Your task to perform on an android device: Go to Reddit.com Image 0: 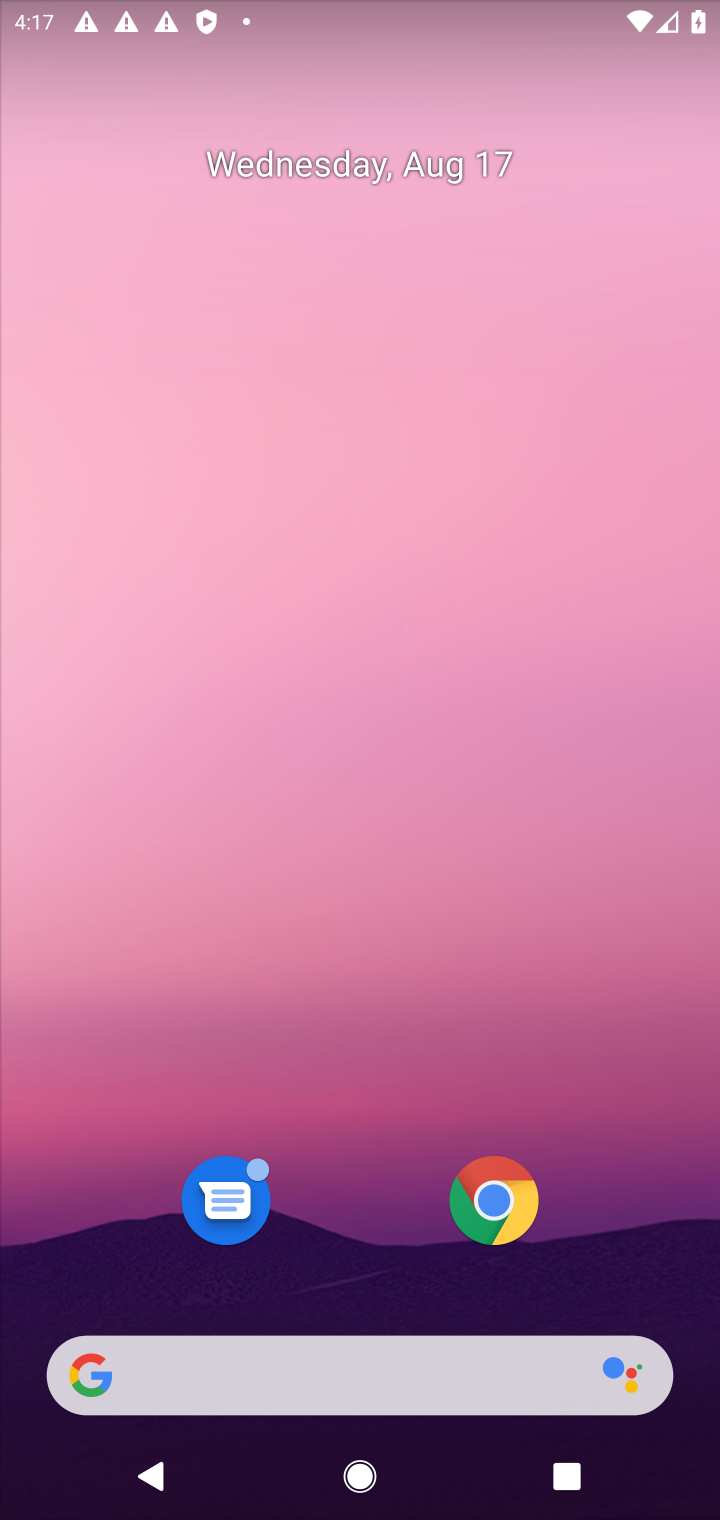
Step 0: drag from (315, 369) to (311, 200)
Your task to perform on an android device: Go to Reddit.com Image 1: 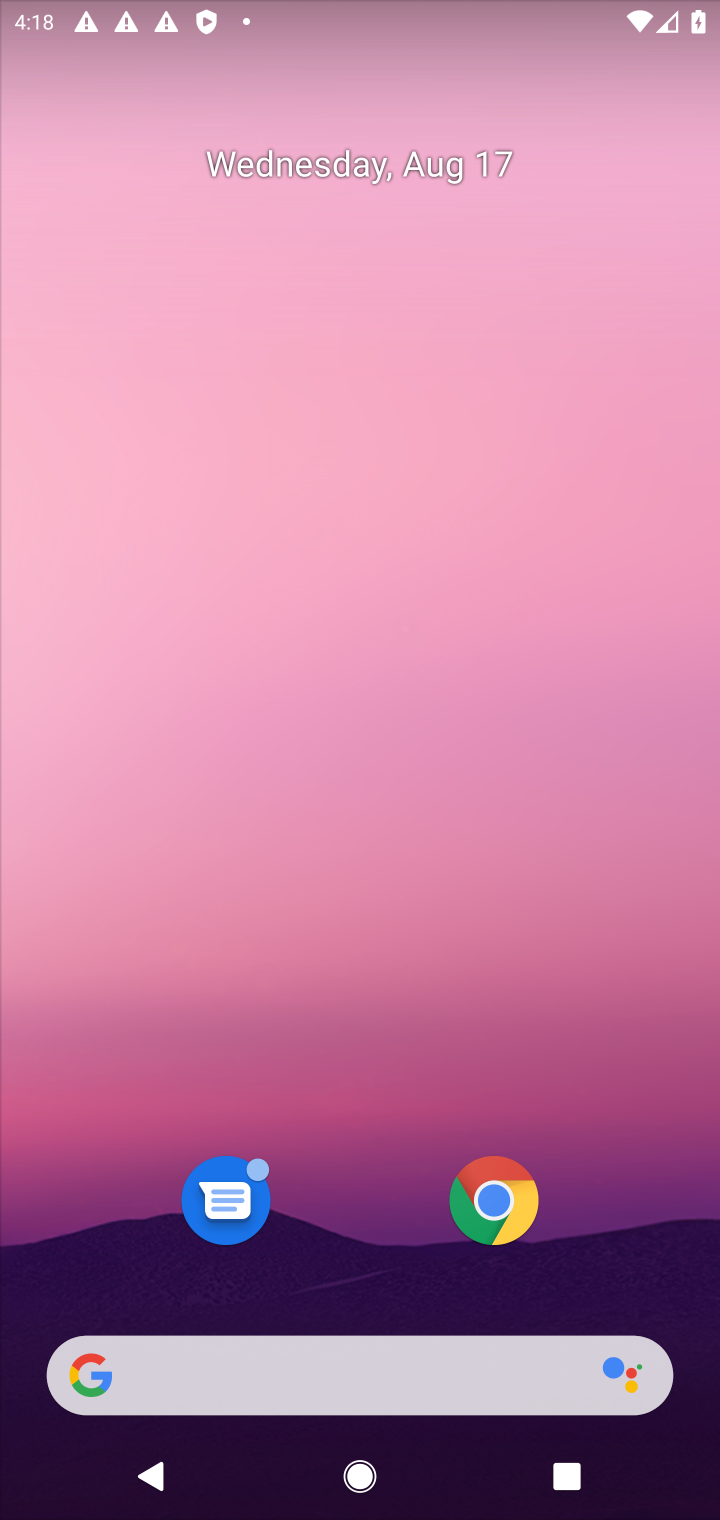
Step 1: click (503, 1204)
Your task to perform on an android device: Go to Reddit.com Image 2: 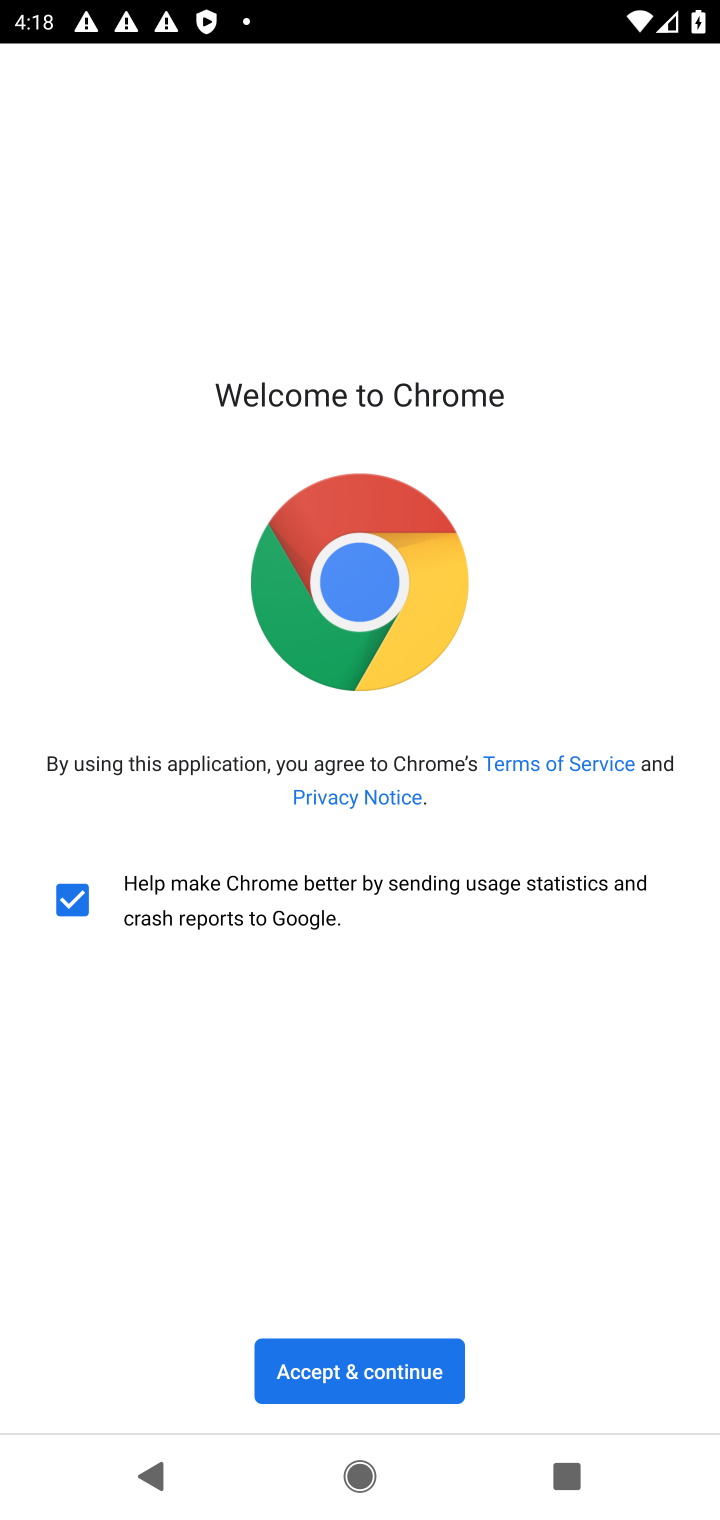
Step 2: click (316, 1380)
Your task to perform on an android device: Go to Reddit.com Image 3: 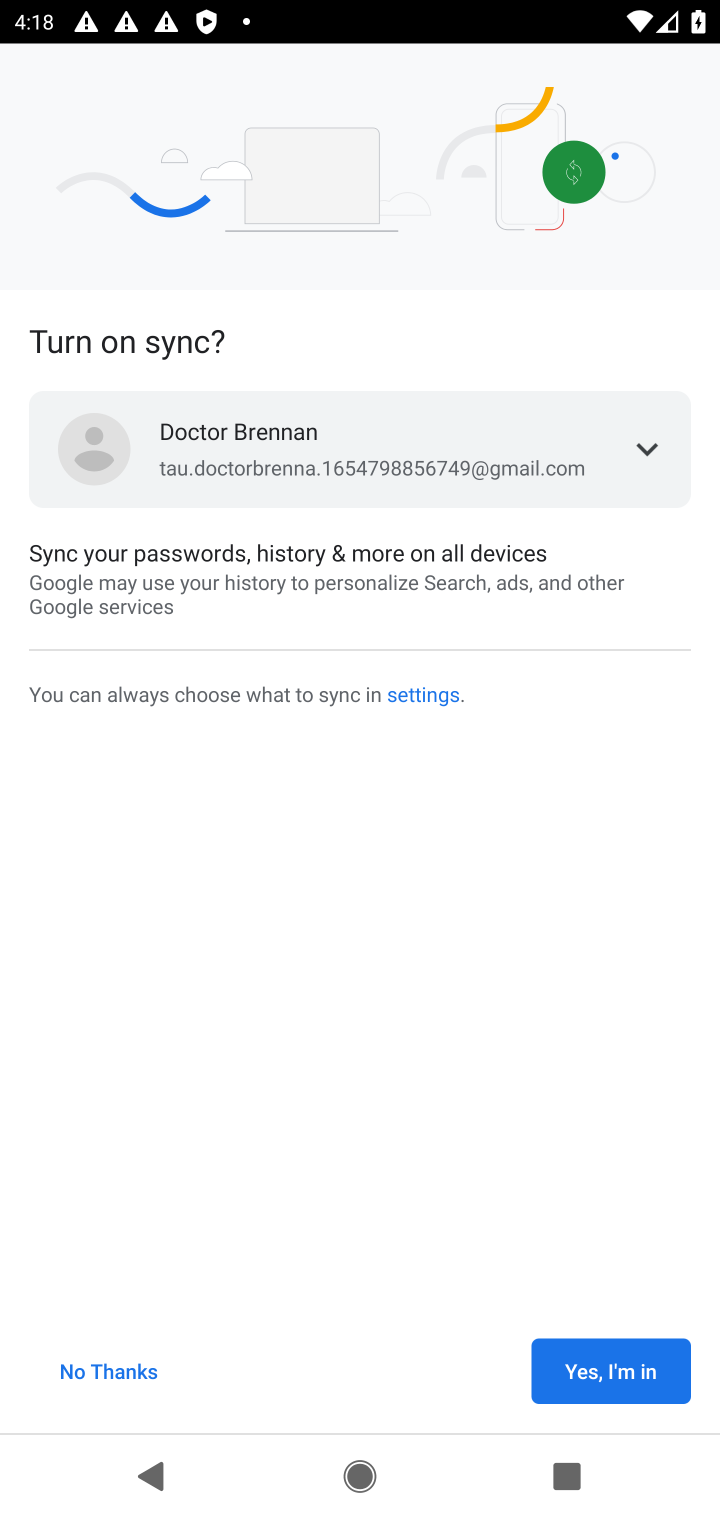
Step 3: click (88, 1366)
Your task to perform on an android device: Go to Reddit.com Image 4: 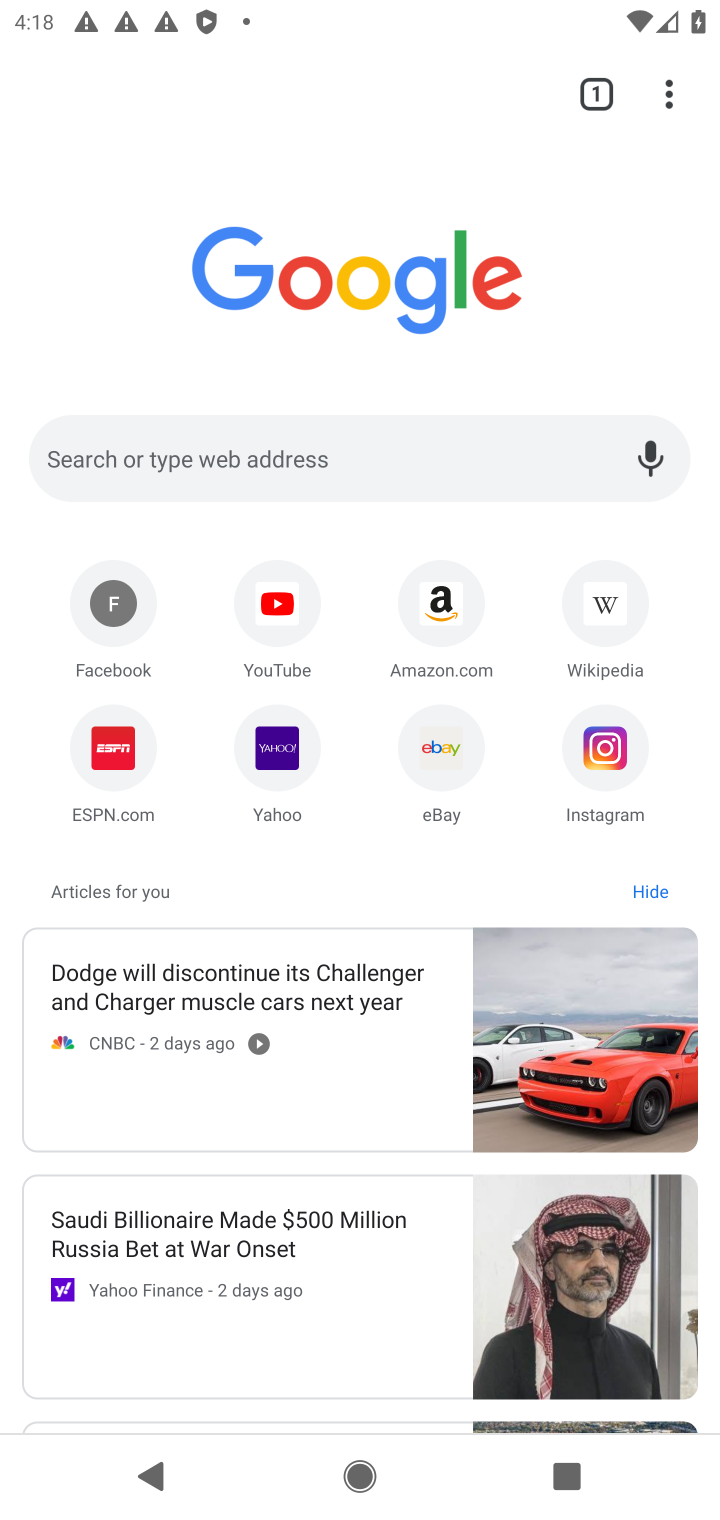
Step 4: click (392, 446)
Your task to perform on an android device: Go to Reddit.com Image 5: 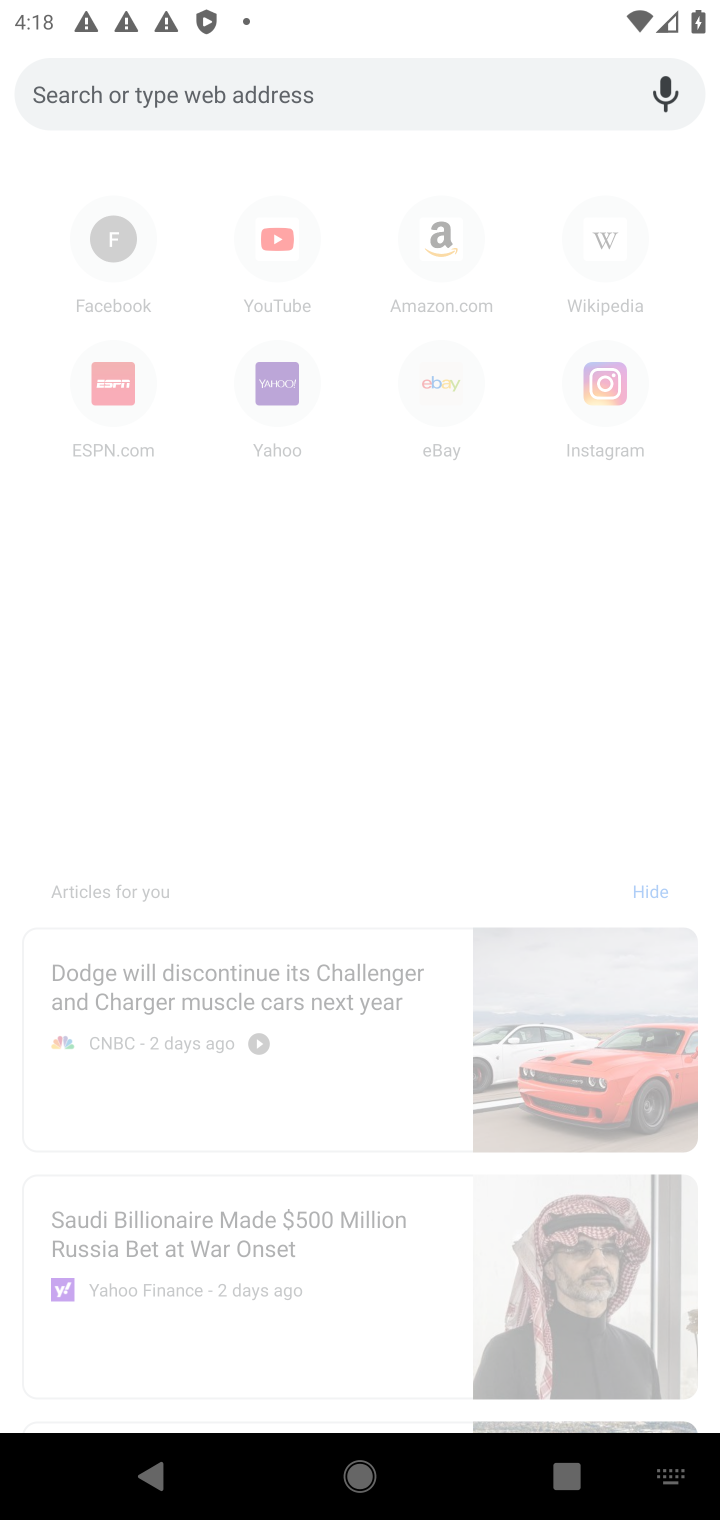
Step 5: type "Reddit.com"
Your task to perform on an android device: Go to Reddit.com Image 6: 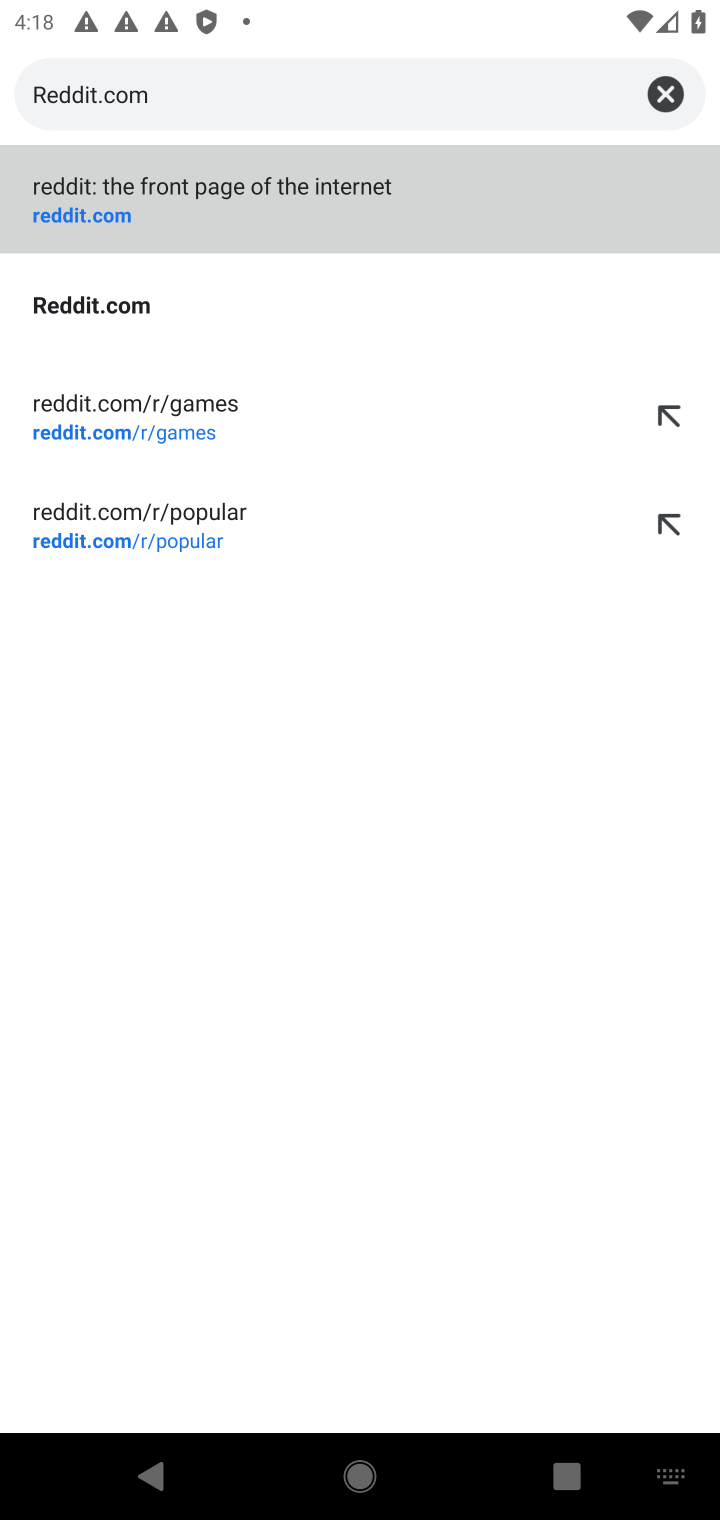
Step 6: click (179, 200)
Your task to perform on an android device: Go to Reddit.com Image 7: 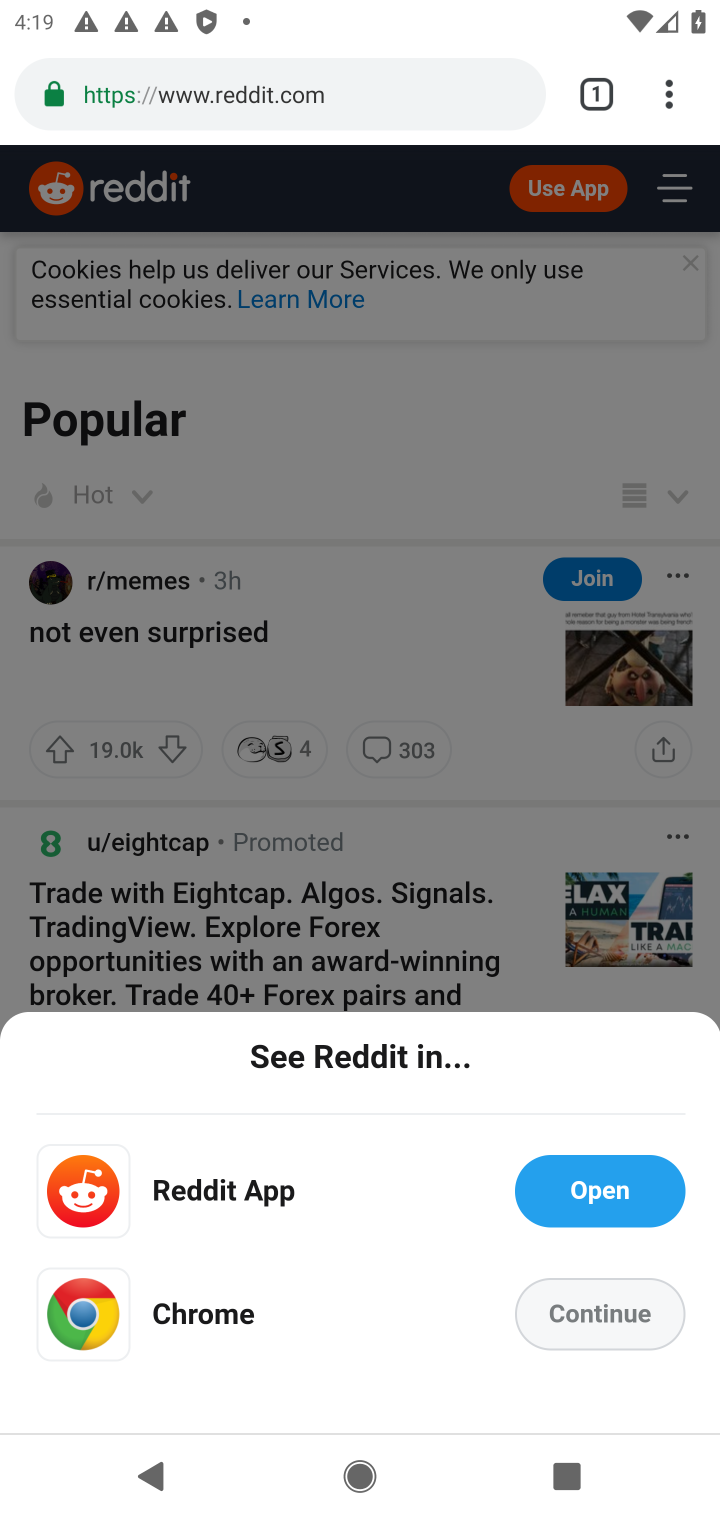
Step 7: task complete